Your task to perform on an android device: Show me recent news Image 0: 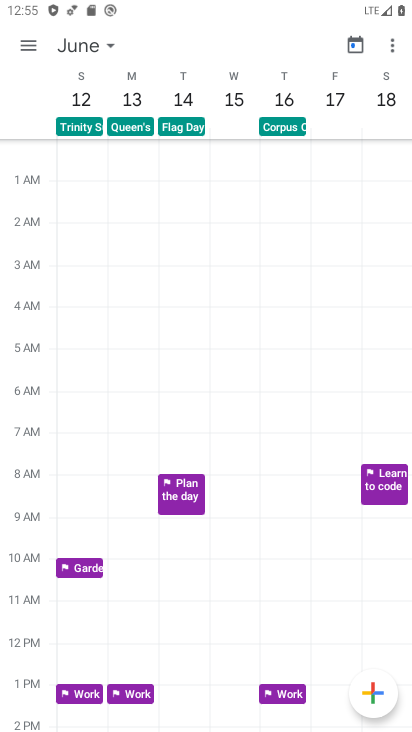
Step 0: press home button
Your task to perform on an android device: Show me recent news Image 1: 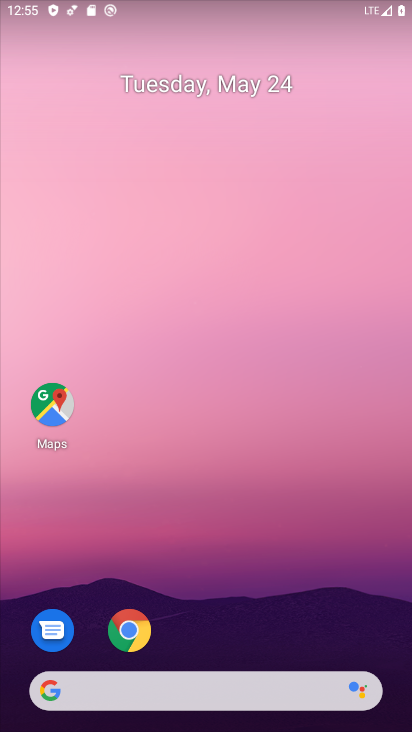
Step 1: task complete